Your task to perform on an android device: Open internet settings Image 0: 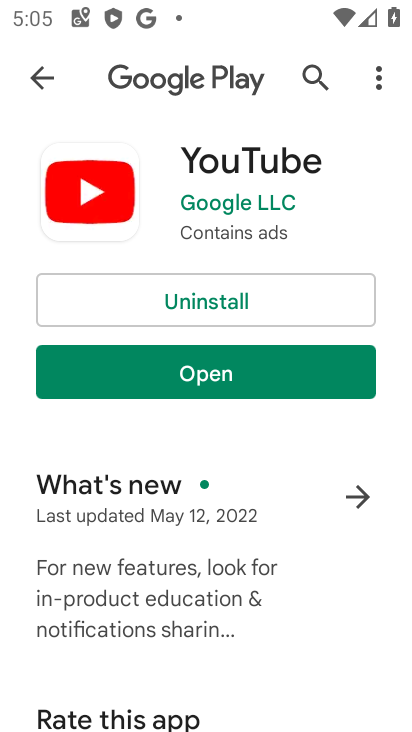
Step 0: press back button
Your task to perform on an android device: Open internet settings Image 1: 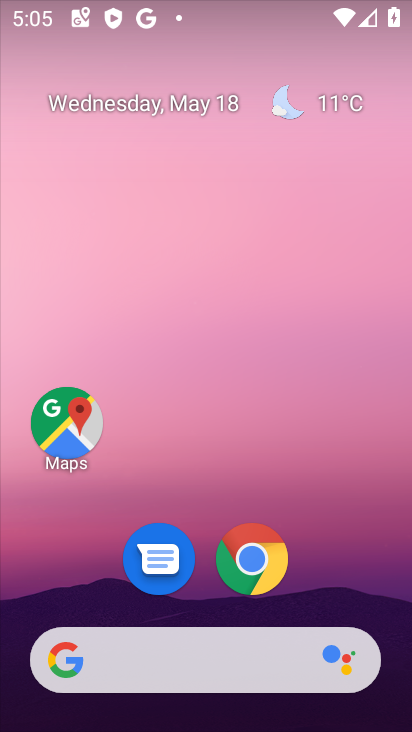
Step 1: drag from (210, 562) to (242, 74)
Your task to perform on an android device: Open internet settings Image 2: 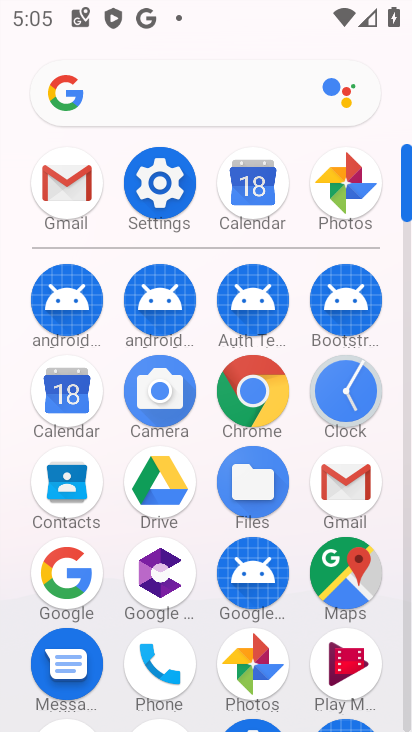
Step 2: click (139, 162)
Your task to perform on an android device: Open internet settings Image 3: 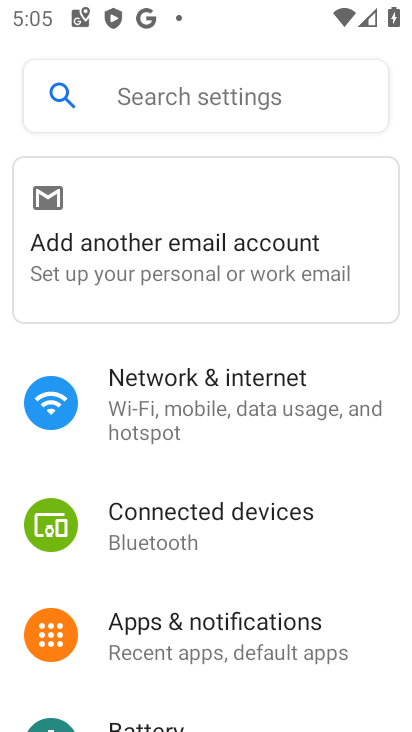
Step 3: click (177, 411)
Your task to perform on an android device: Open internet settings Image 4: 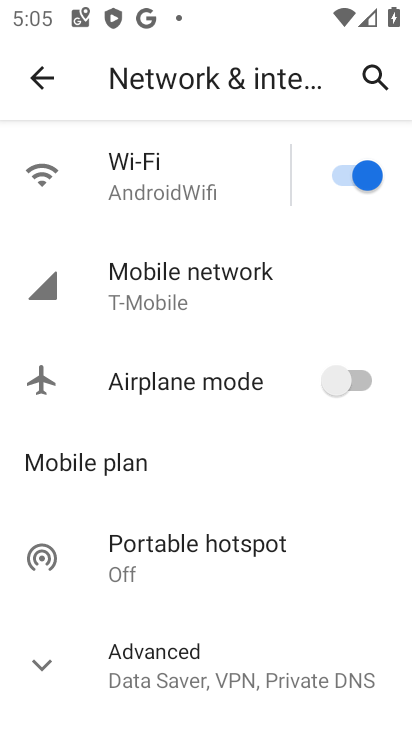
Step 4: task complete